Your task to perform on an android device: open device folders in google photos Image 0: 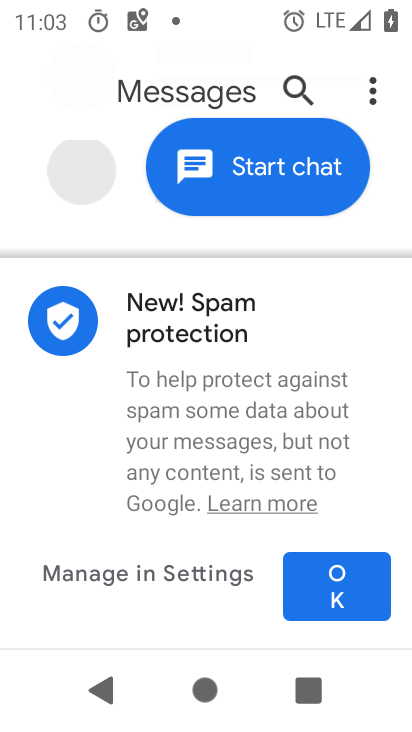
Step 0: press home button
Your task to perform on an android device: open device folders in google photos Image 1: 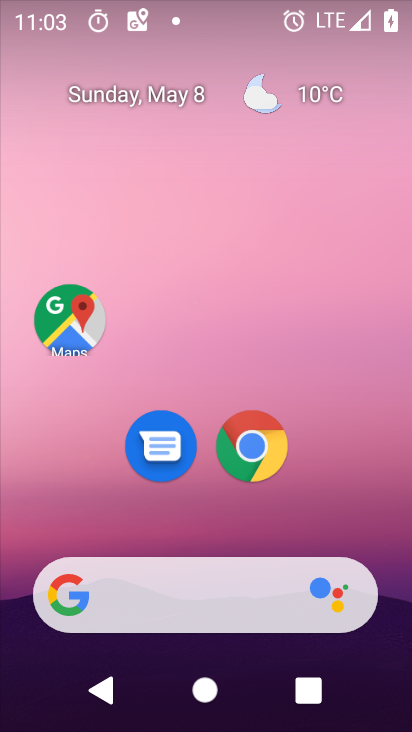
Step 1: drag from (379, 564) to (380, 12)
Your task to perform on an android device: open device folders in google photos Image 2: 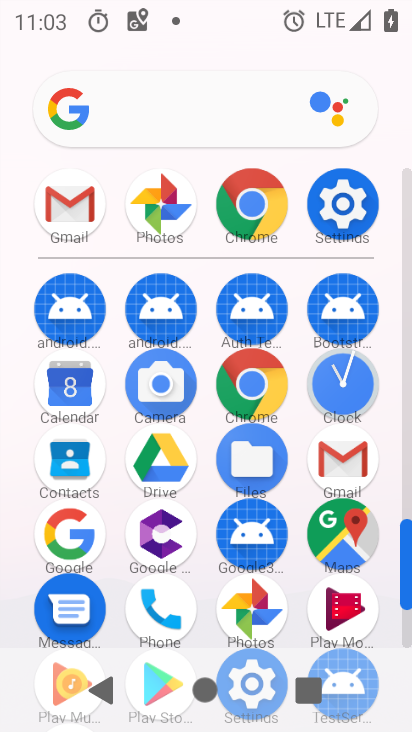
Step 2: click (262, 607)
Your task to perform on an android device: open device folders in google photos Image 3: 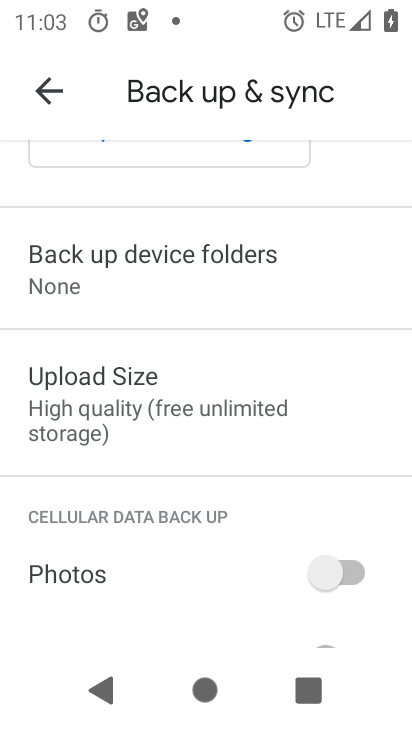
Step 3: click (48, 101)
Your task to perform on an android device: open device folders in google photos Image 4: 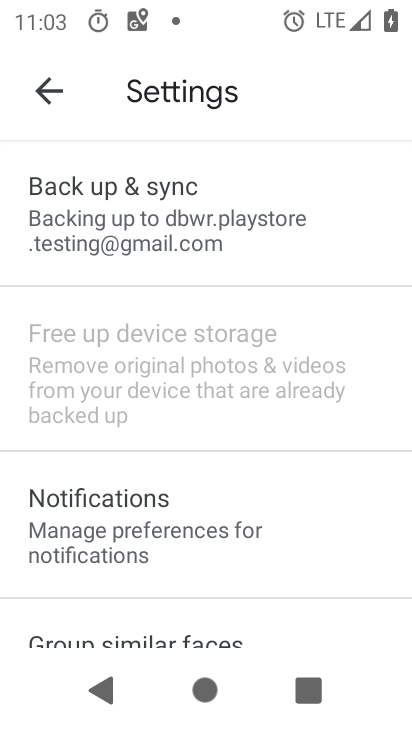
Step 4: click (48, 101)
Your task to perform on an android device: open device folders in google photos Image 5: 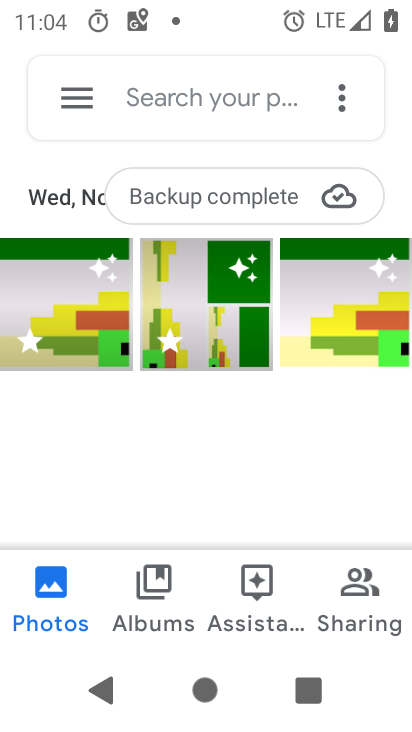
Step 5: click (82, 100)
Your task to perform on an android device: open device folders in google photos Image 6: 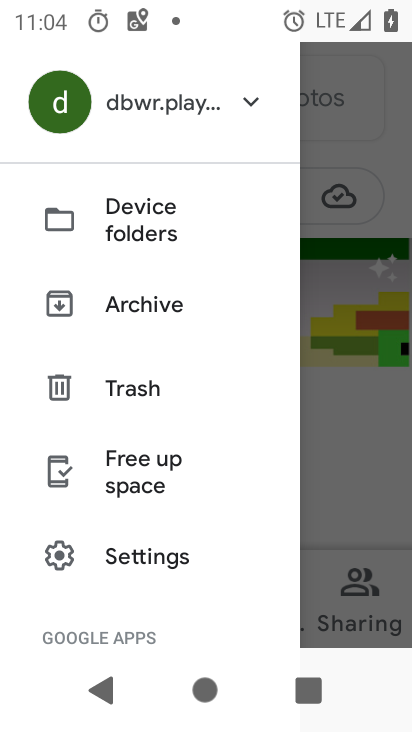
Step 6: click (110, 230)
Your task to perform on an android device: open device folders in google photos Image 7: 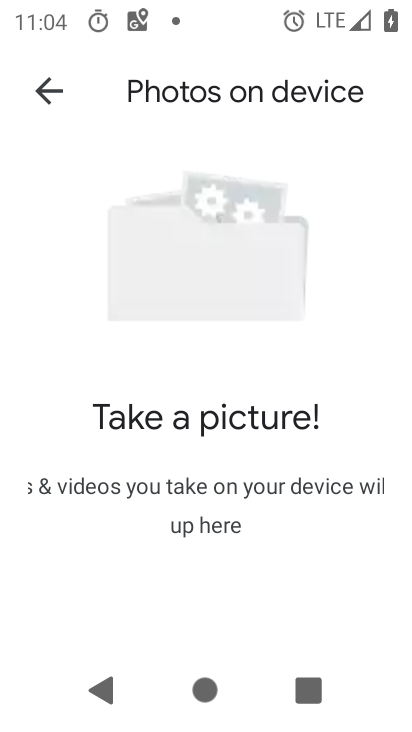
Step 7: task complete